Your task to perform on an android device: change alarm snooze length Image 0: 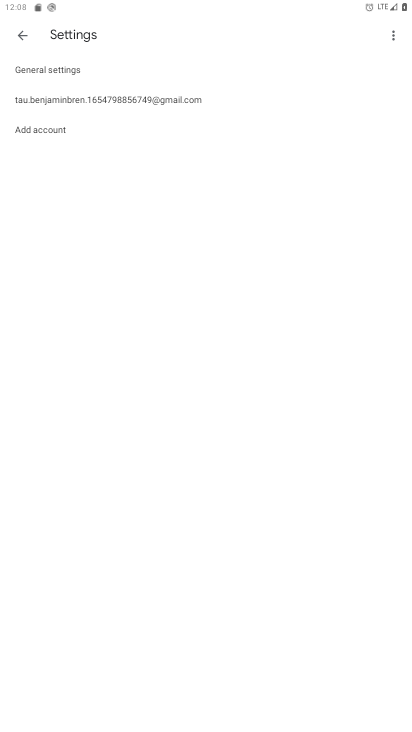
Step 0: press home button
Your task to perform on an android device: change alarm snooze length Image 1: 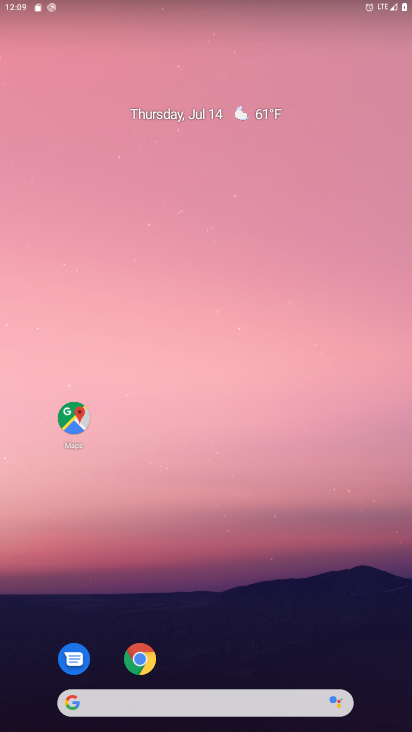
Step 1: drag from (200, 670) to (224, 237)
Your task to perform on an android device: change alarm snooze length Image 2: 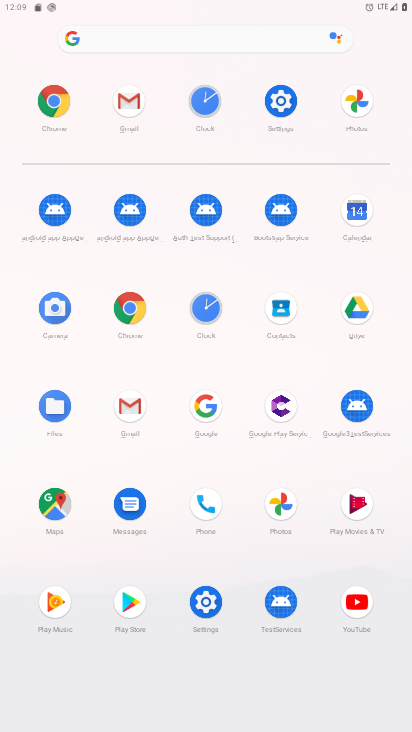
Step 2: click (202, 297)
Your task to perform on an android device: change alarm snooze length Image 3: 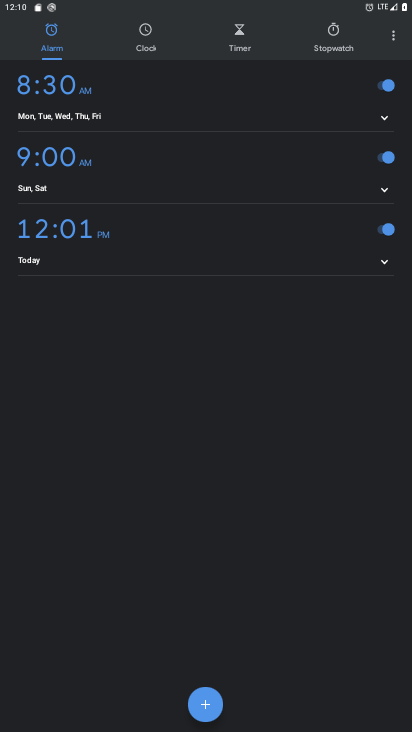
Step 3: click (388, 33)
Your task to perform on an android device: change alarm snooze length Image 4: 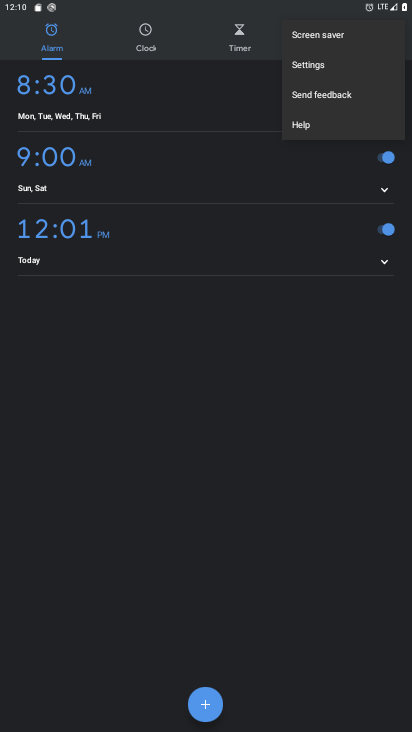
Step 4: click (326, 65)
Your task to perform on an android device: change alarm snooze length Image 5: 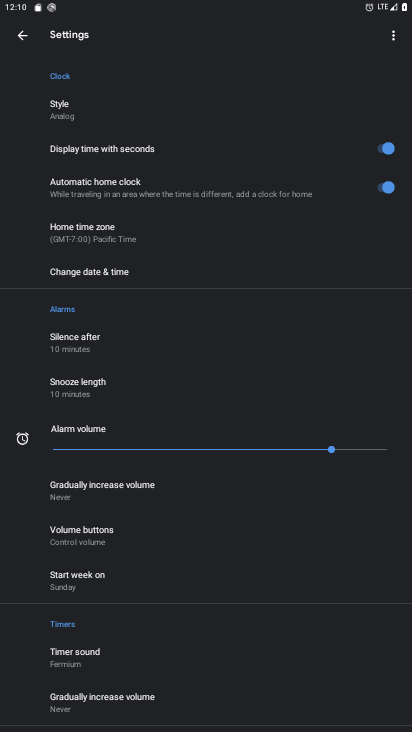
Step 5: click (119, 387)
Your task to perform on an android device: change alarm snooze length Image 6: 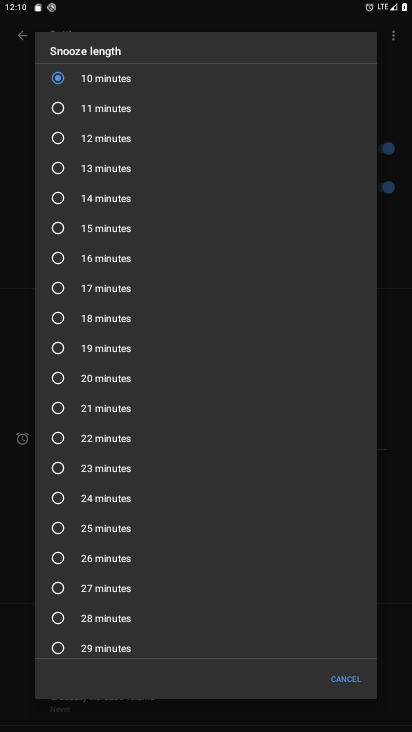
Step 6: drag from (89, 133) to (81, 480)
Your task to perform on an android device: change alarm snooze length Image 7: 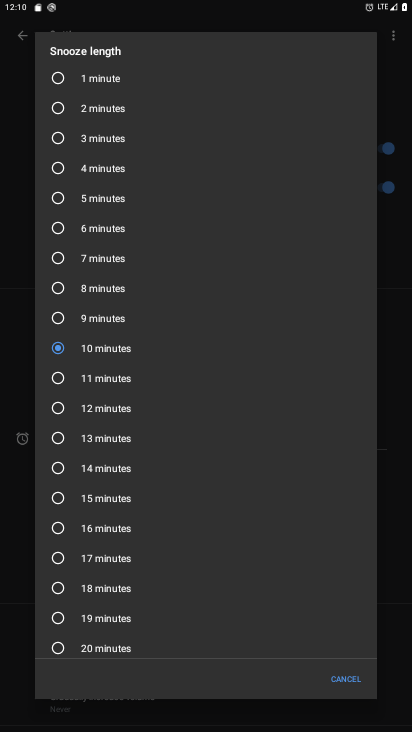
Step 7: click (54, 197)
Your task to perform on an android device: change alarm snooze length Image 8: 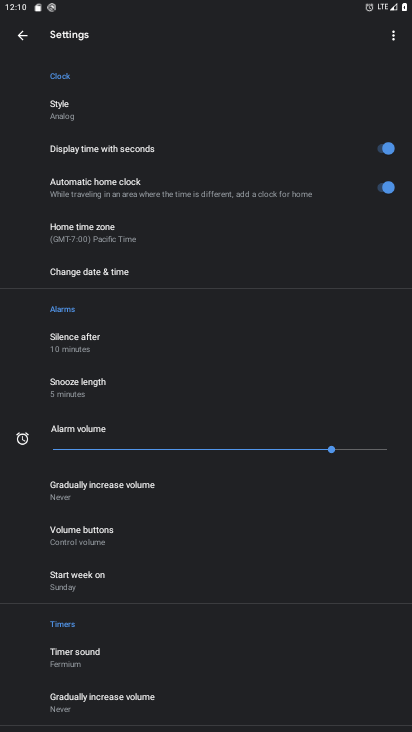
Step 8: task complete